Your task to perform on an android device: turn on bluetooth scan Image 0: 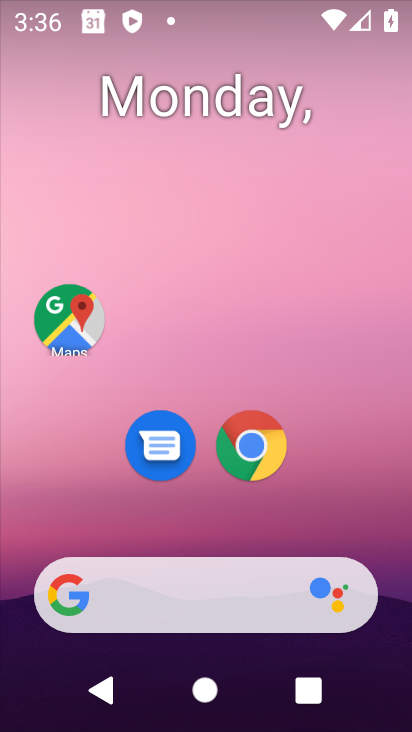
Step 0: drag from (332, 500) to (343, 82)
Your task to perform on an android device: turn on bluetooth scan Image 1: 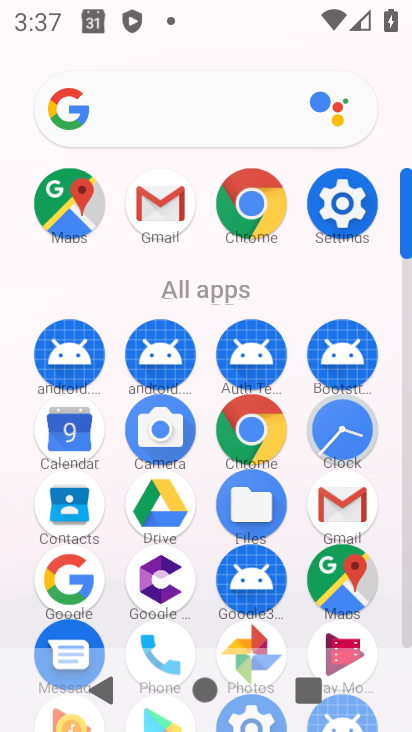
Step 1: drag from (406, 292) to (411, 361)
Your task to perform on an android device: turn on bluetooth scan Image 2: 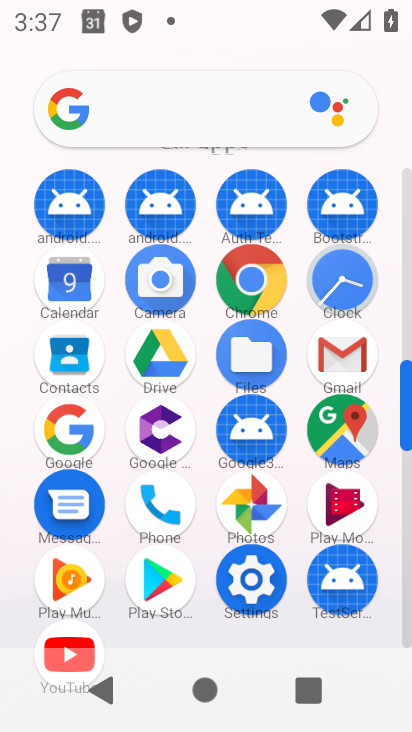
Step 2: click (253, 592)
Your task to perform on an android device: turn on bluetooth scan Image 3: 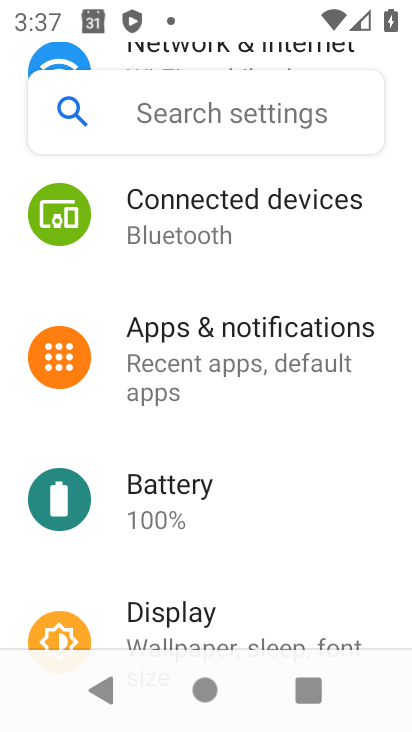
Step 3: drag from (242, 587) to (283, 175)
Your task to perform on an android device: turn on bluetooth scan Image 4: 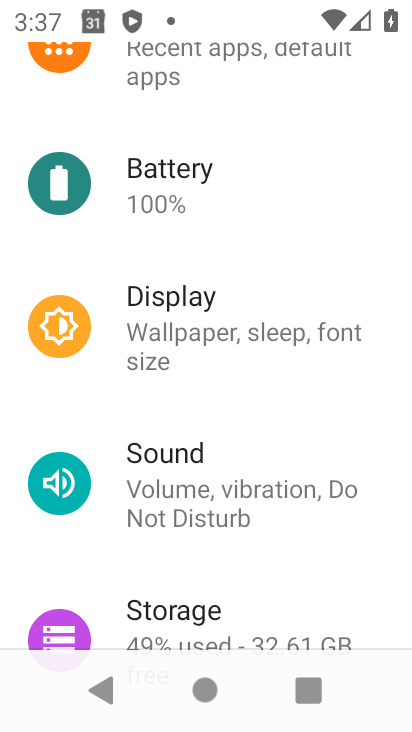
Step 4: drag from (281, 454) to (286, 82)
Your task to perform on an android device: turn on bluetooth scan Image 5: 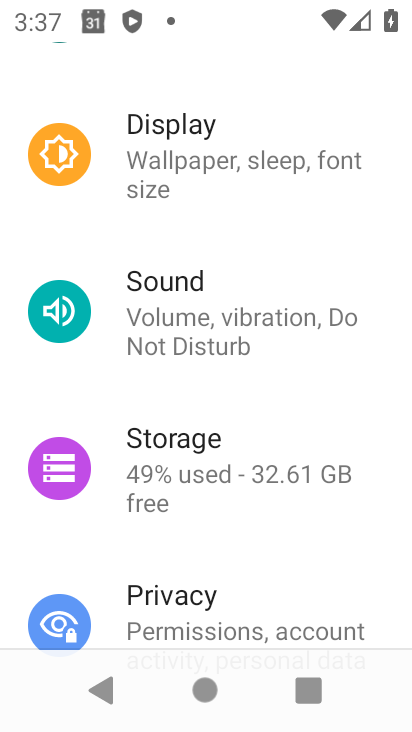
Step 5: drag from (169, 589) to (217, 223)
Your task to perform on an android device: turn on bluetooth scan Image 6: 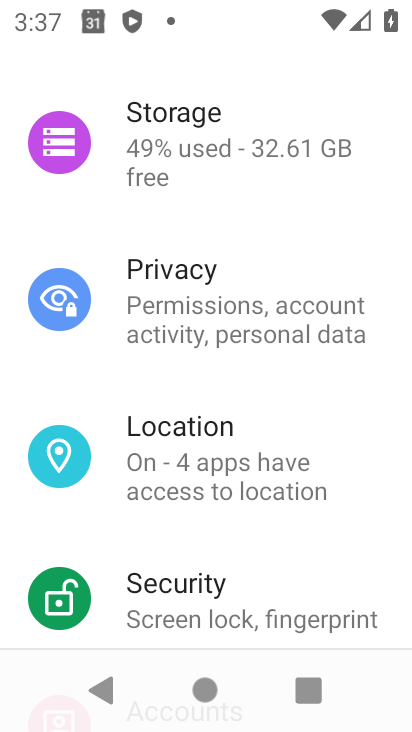
Step 6: click (205, 446)
Your task to perform on an android device: turn on bluetooth scan Image 7: 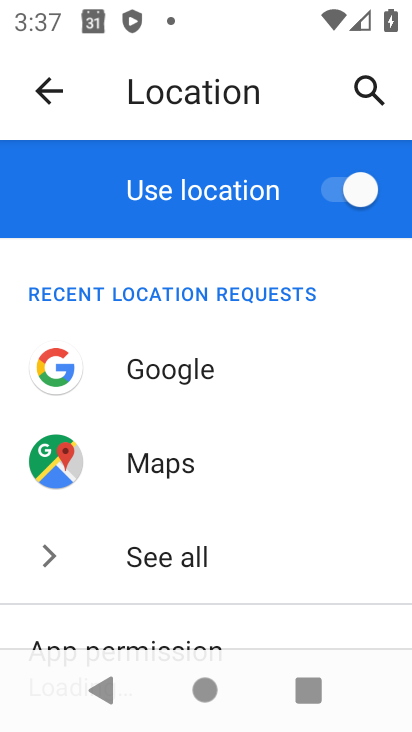
Step 7: drag from (251, 527) to (279, 112)
Your task to perform on an android device: turn on bluetooth scan Image 8: 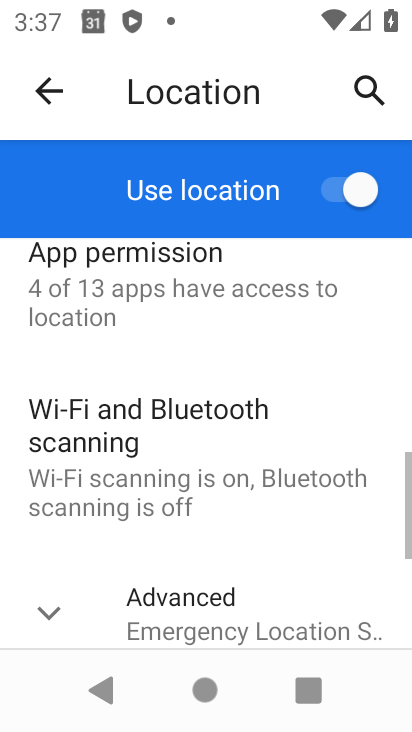
Step 8: click (177, 397)
Your task to perform on an android device: turn on bluetooth scan Image 9: 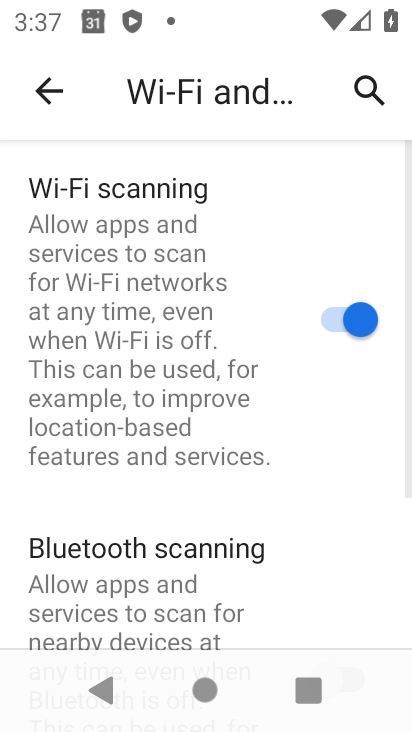
Step 9: drag from (177, 397) to (255, 67)
Your task to perform on an android device: turn on bluetooth scan Image 10: 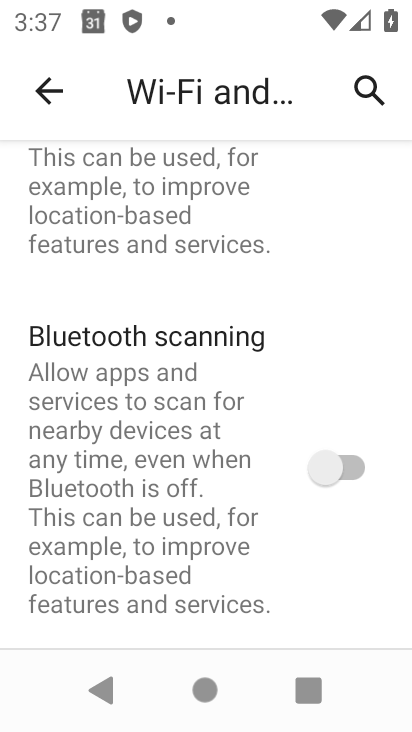
Step 10: click (187, 528)
Your task to perform on an android device: turn on bluetooth scan Image 11: 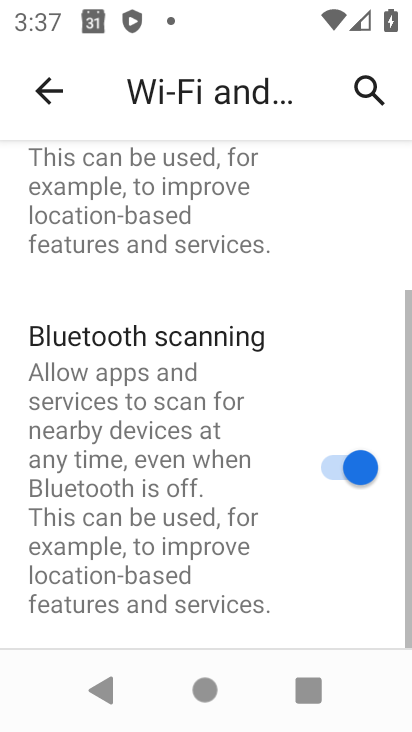
Step 11: task complete